Your task to perform on an android device: turn off picture-in-picture Image 0: 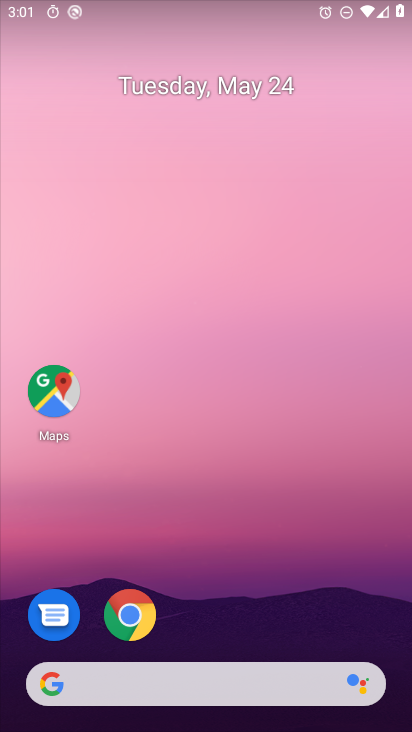
Step 0: click (209, 259)
Your task to perform on an android device: turn off picture-in-picture Image 1: 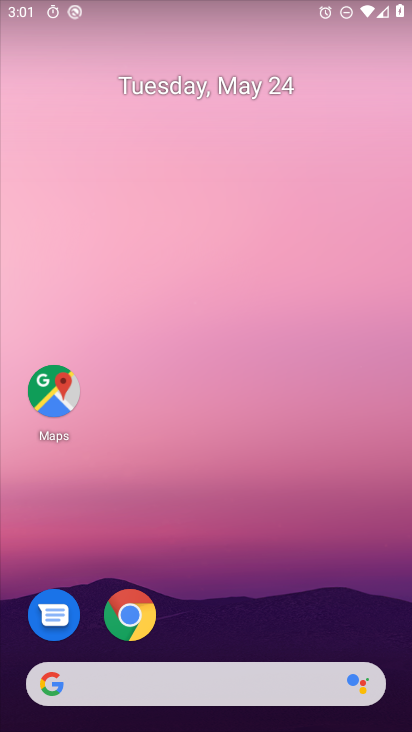
Step 1: click (209, 259)
Your task to perform on an android device: turn off picture-in-picture Image 2: 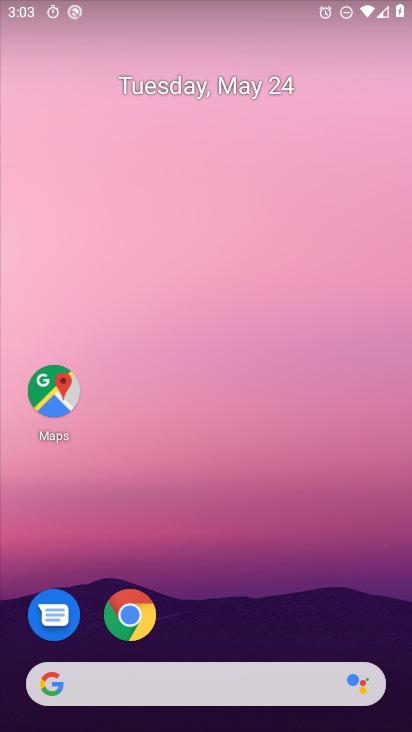
Step 2: click (124, 612)
Your task to perform on an android device: turn off picture-in-picture Image 3: 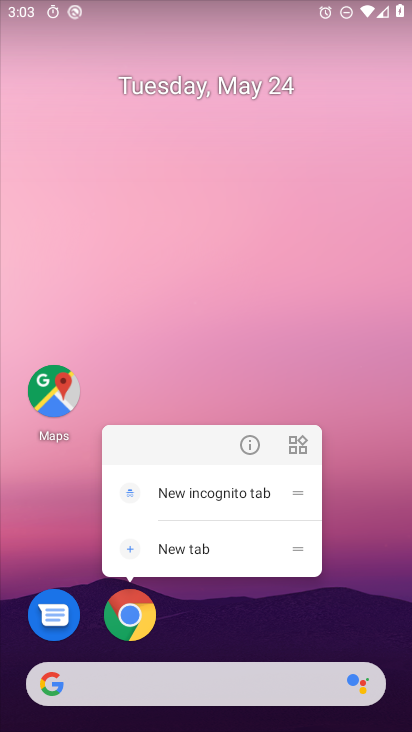
Step 3: click (246, 438)
Your task to perform on an android device: turn off picture-in-picture Image 4: 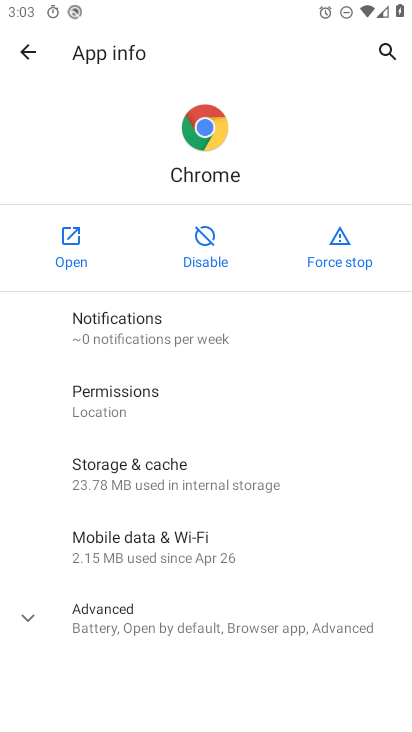
Step 4: drag from (179, 615) to (189, 256)
Your task to perform on an android device: turn off picture-in-picture Image 5: 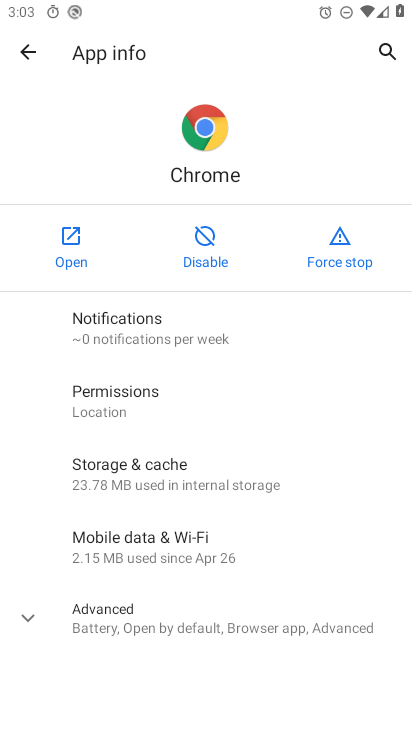
Step 5: click (144, 623)
Your task to perform on an android device: turn off picture-in-picture Image 6: 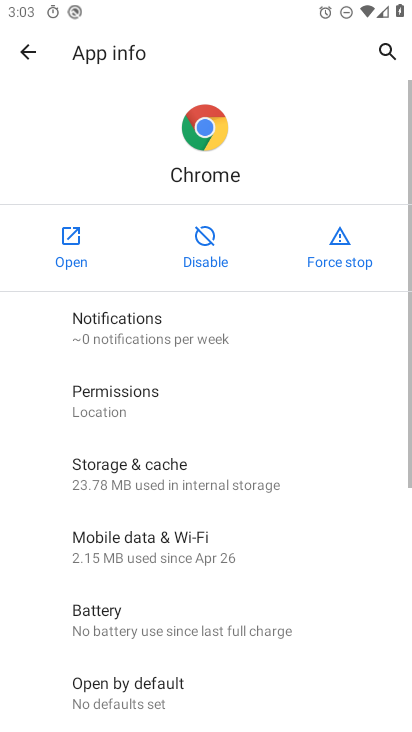
Step 6: drag from (152, 679) to (177, 278)
Your task to perform on an android device: turn off picture-in-picture Image 7: 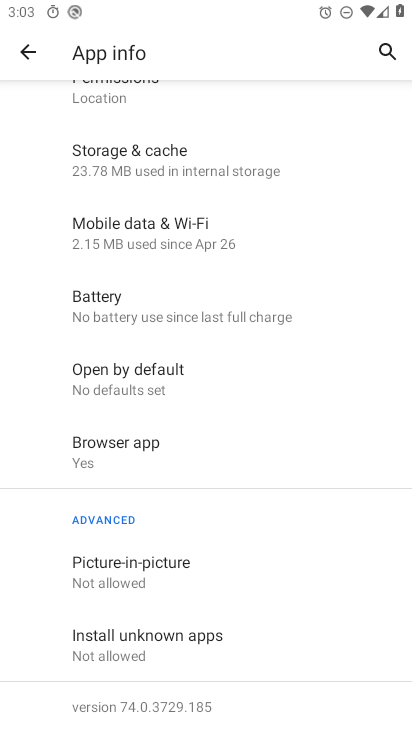
Step 7: click (116, 568)
Your task to perform on an android device: turn off picture-in-picture Image 8: 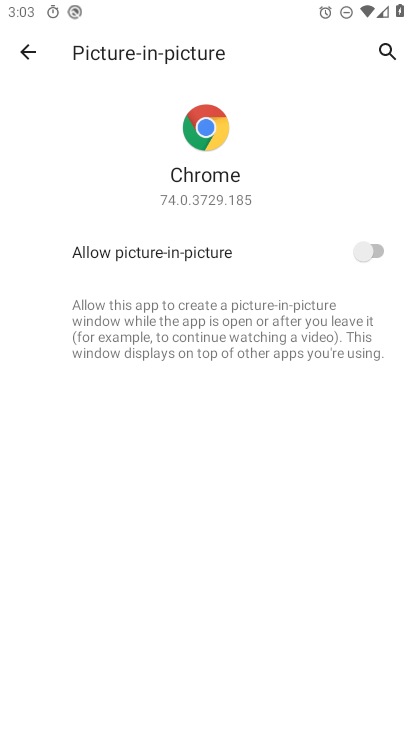
Step 8: task complete